Your task to perform on an android device: Open location settings Image 0: 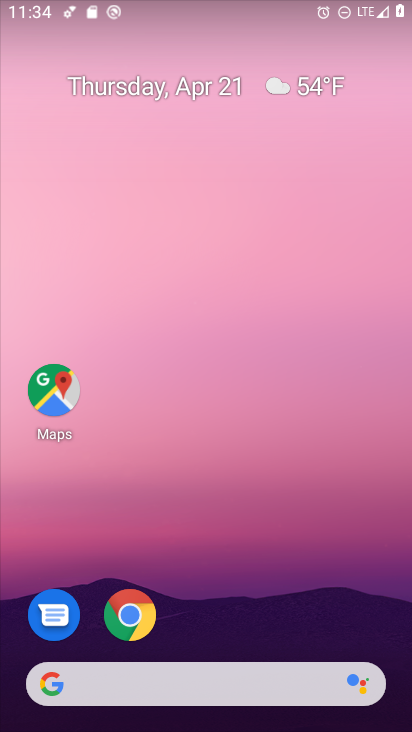
Step 0: drag from (255, 612) to (269, 106)
Your task to perform on an android device: Open location settings Image 1: 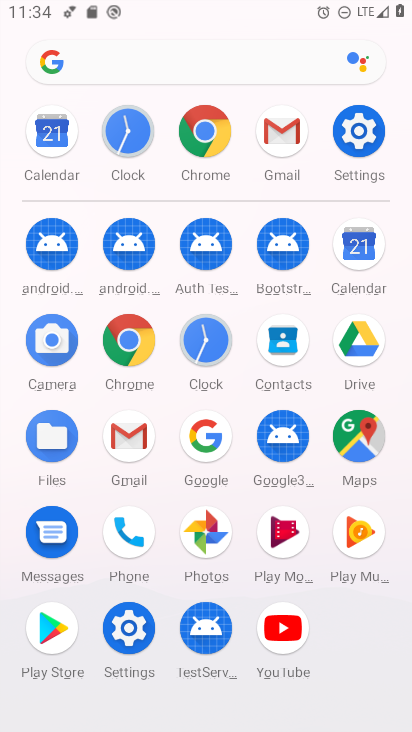
Step 1: click (111, 630)
Your task to perform on an android device: Open location settings Image 2: 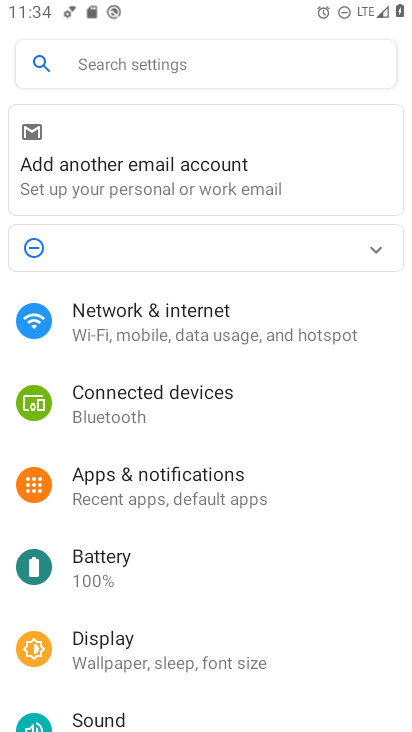
Step 2: drag from (136, 643) to (144, 542)
Your task to perform on an android device: Open location settings Image 3: 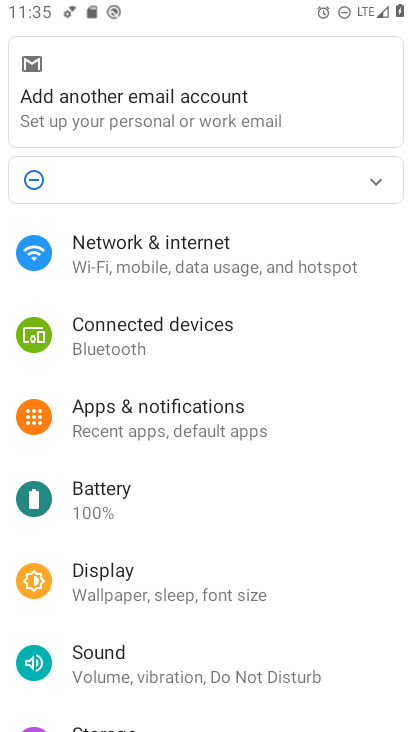
Step 3: drag from (164, 597) to (164, 485)
Your task to perform on an android device: Open location settings Image 4: 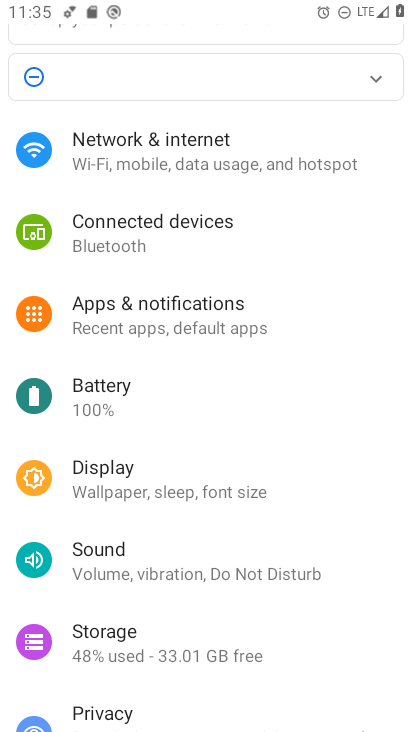
Step 4: drag from (176, 606) to (175, 498)
Your task to perform on an android device: Open location settings Image 5: 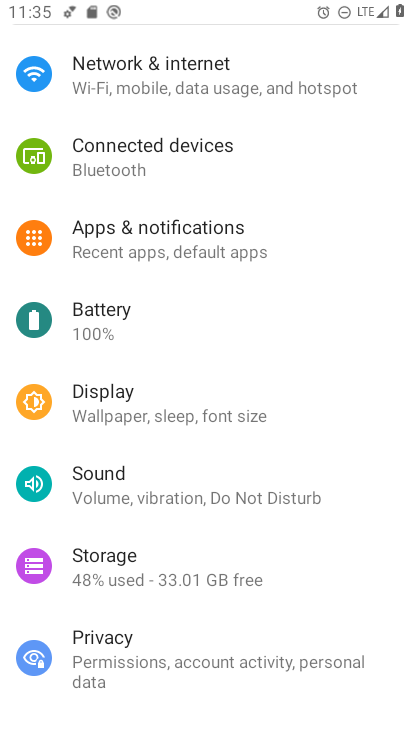
Step 5: drag from (206, 608) to (199, 517)
Your task to perform on an android device: Open location settings Image 6: 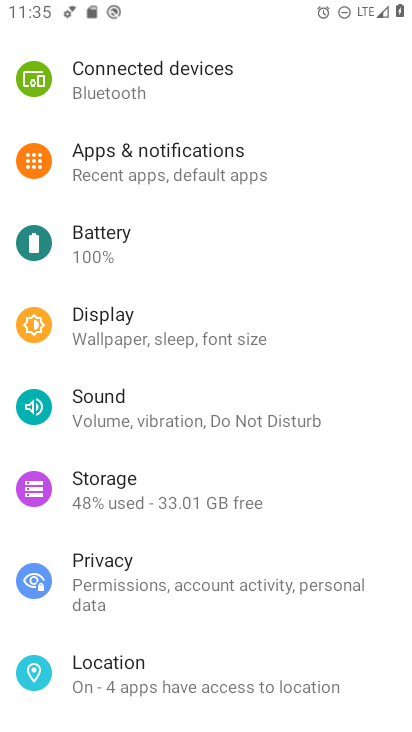
Step 6: click (191, 672)
Your task to perform on an android device: Open location settings Image 7: 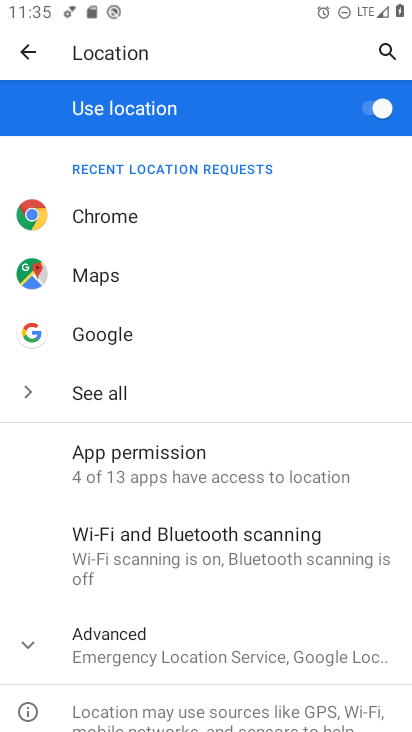
Step 7: task complete